Your task to perform on an android device: Show me recent news Image 0: 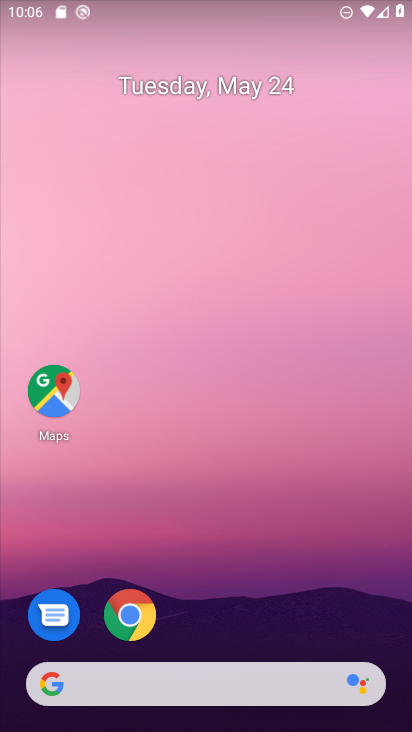
Step 0: drag from (0, 254) to (400, 329)
Your task to perform on an android device: Show me recent news Image 1: 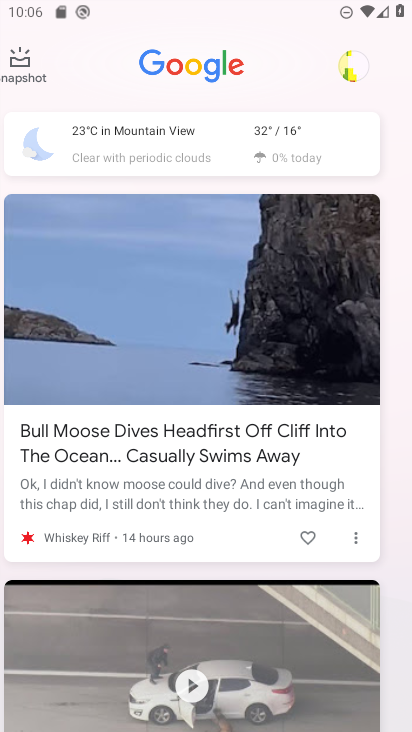
Step 1: task complete